Your task to perform on an android device: Turn off the flashlight Image 0: 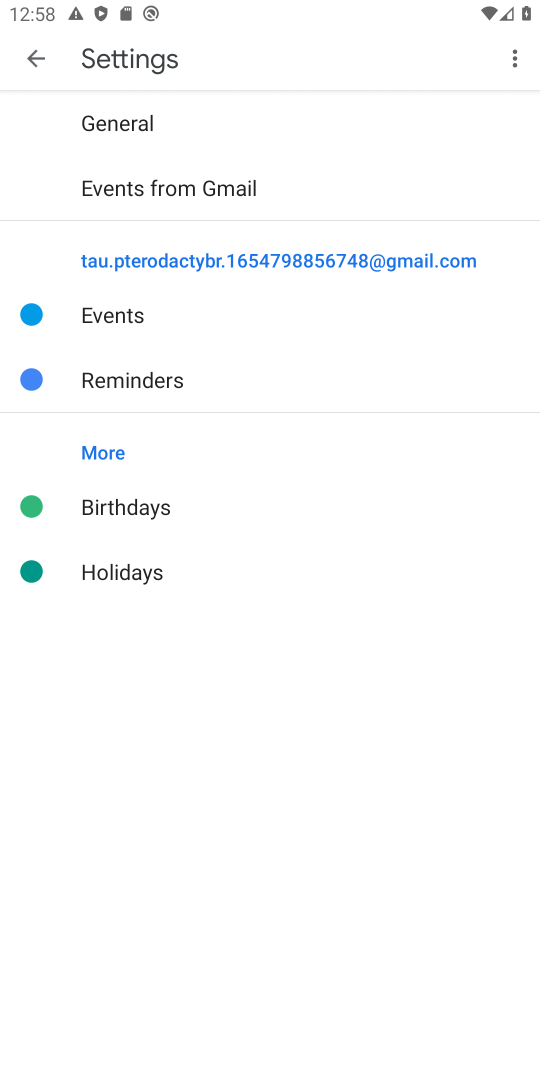
Step 0: press home button
Your task to perform on an android device: Turn off the flashlight Image 1: 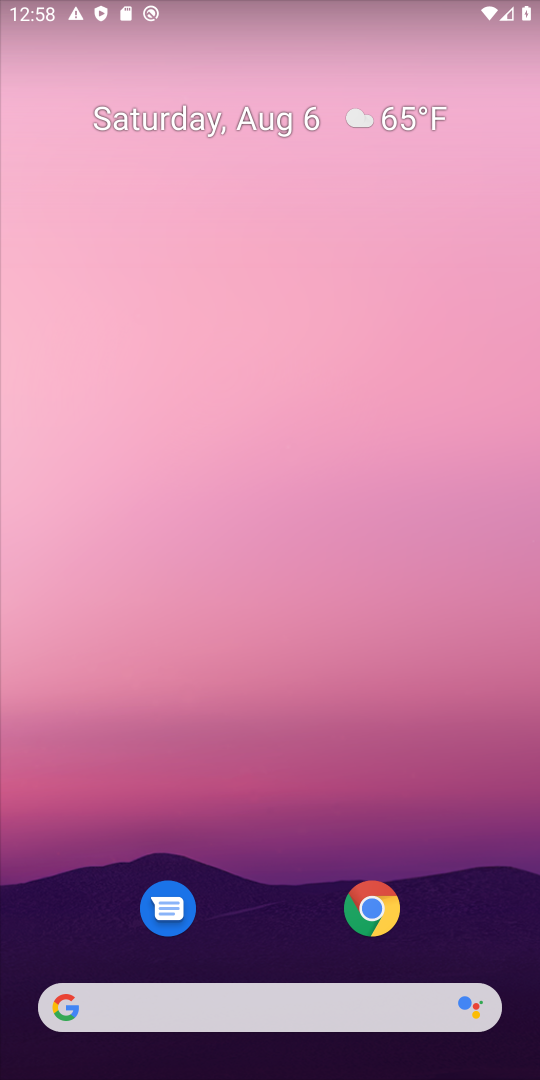
Step 1: drag from (249, 810) to (113, 1)
Your task to perform on an android device: Turn off the flashlight Image 2: 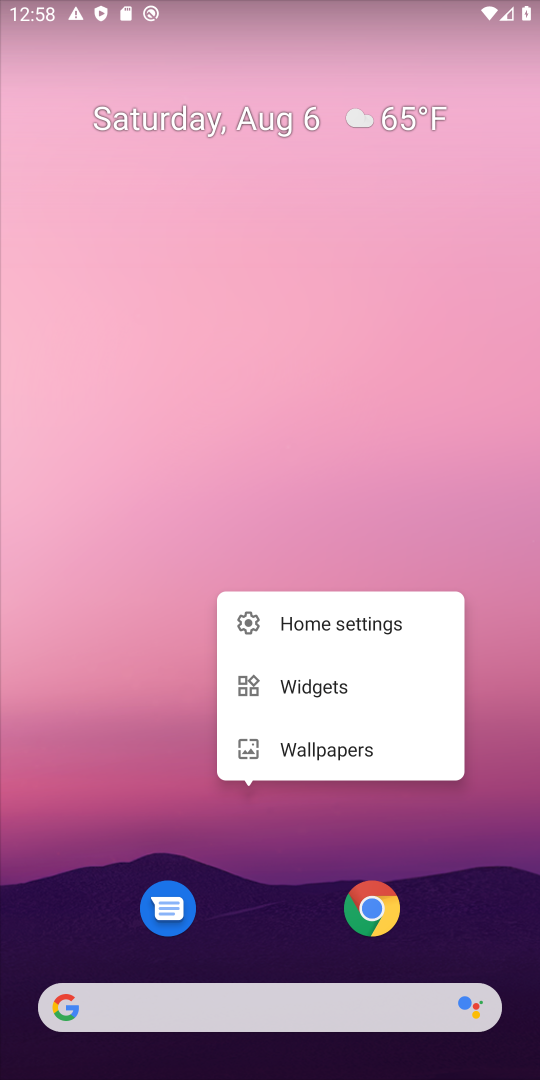
Step 2: click (222, 438)
Your task to perform on an android device: Turn off the flashlight Image 3: 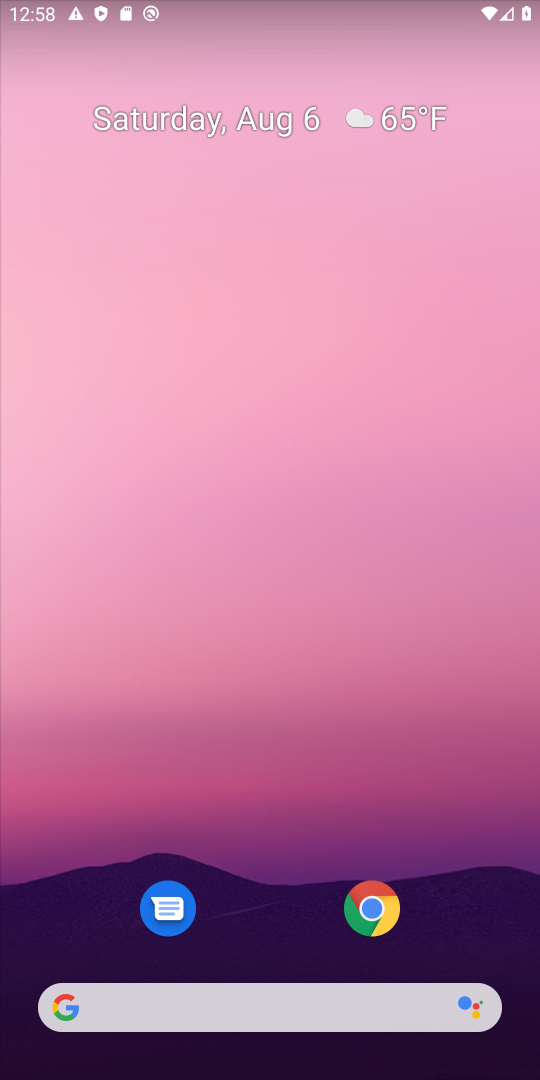
Step 3: drag from (244, 406) to (231, 18)
Your task to perform on an android device: Turn off the flashlight Image 4: 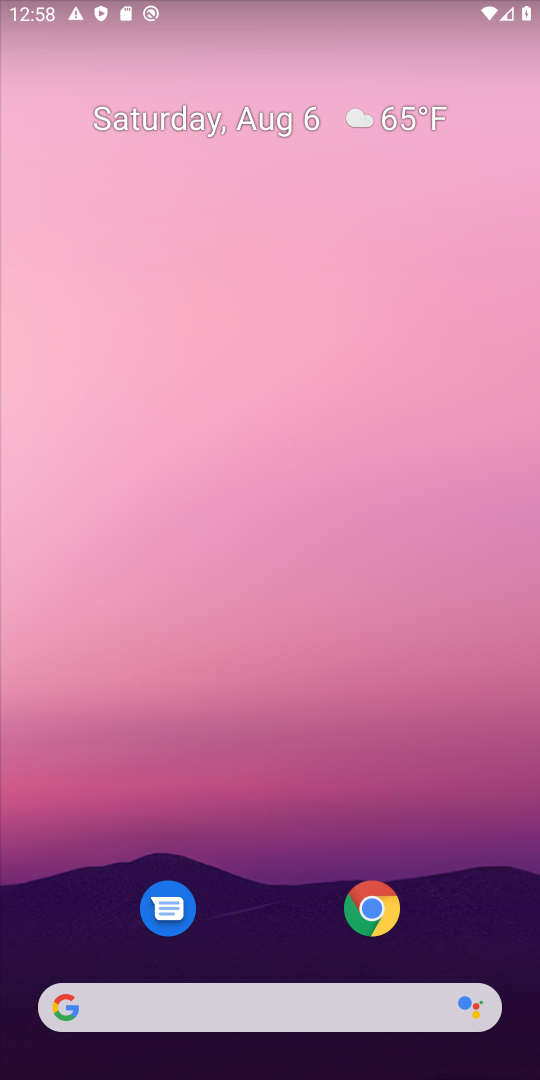
Step 4: drag from (283, 842) to (252, 396)
Your task to perform on an android device: Turn off the flashlight Image 5: 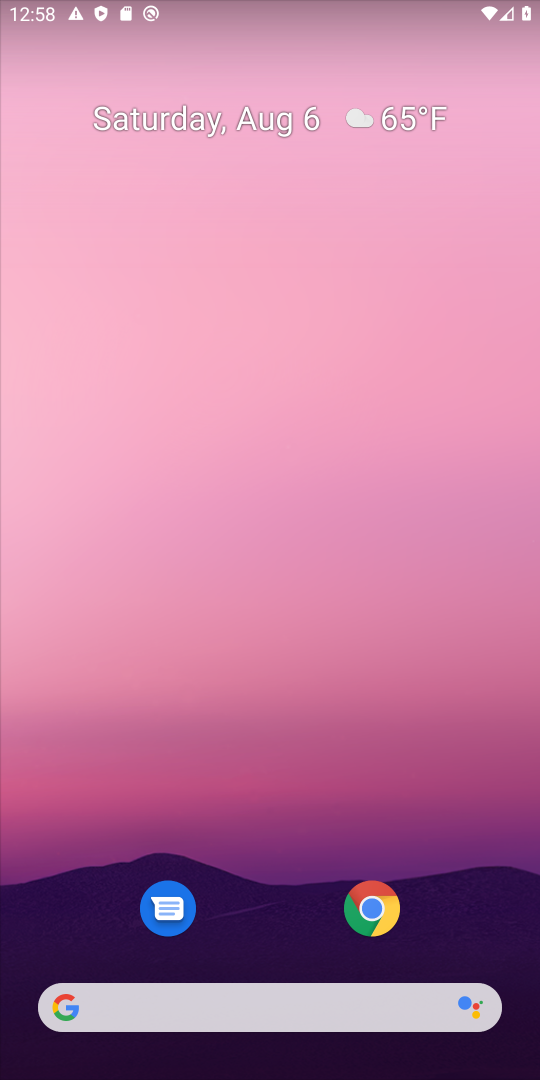
Step 5: drag from (262, 795) to (262, 207)
Your task to perform on an android device: Turn off the flashlight Image 6: 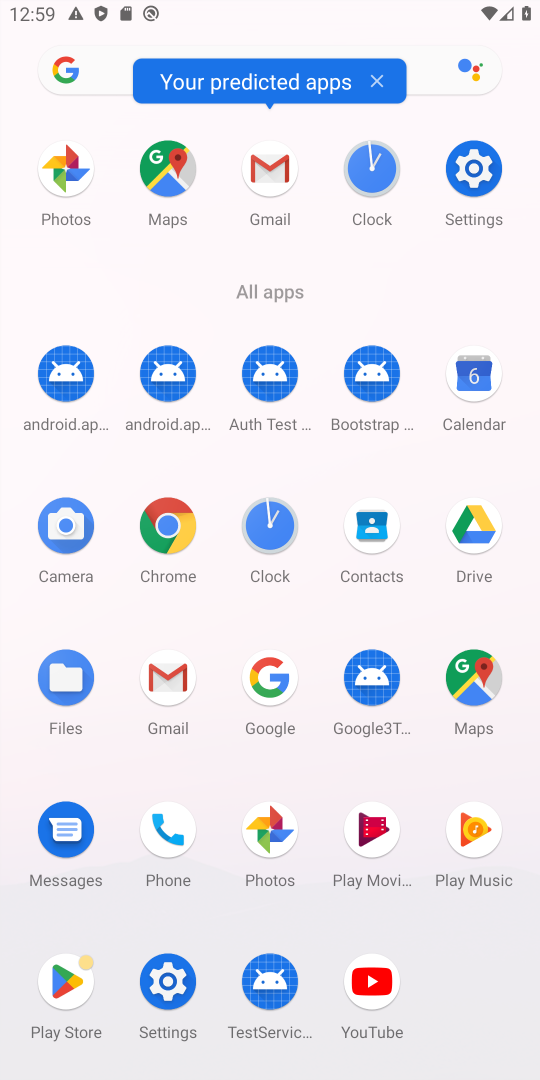
Step 6: click (476, 171)
Your task to perform on an android device: Turn off the flashlight Image 7: 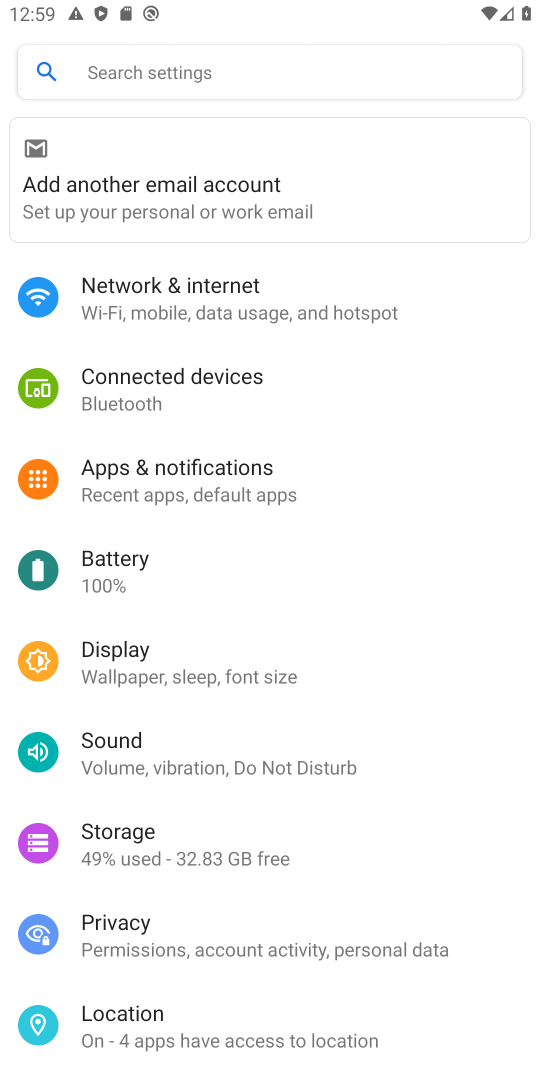
Step 7: task complete